Your task to perform on an android device: Do I have any events tomorrow? Image 0: 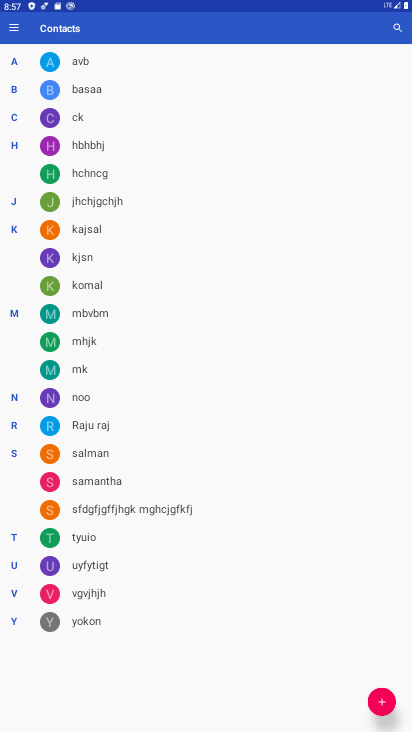
Step 0: press home button
Your task to perform on an android device: Do I have any events tomorrow? Image 1: 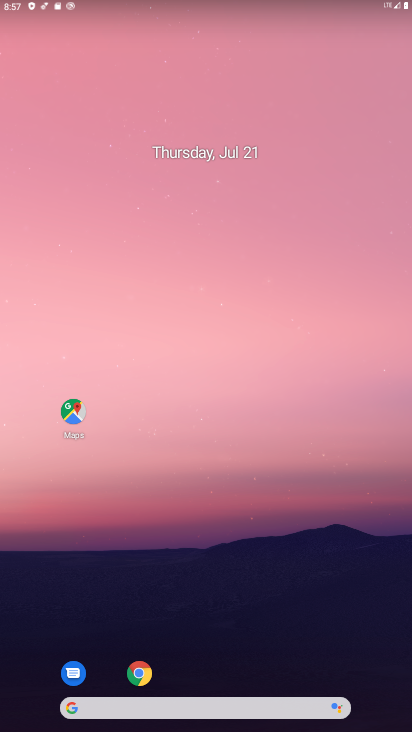
Step 1: drag from (207, 661) to (206, 189)
Your task to perform on an android device: Do I have any events tomorrow? Image 2: 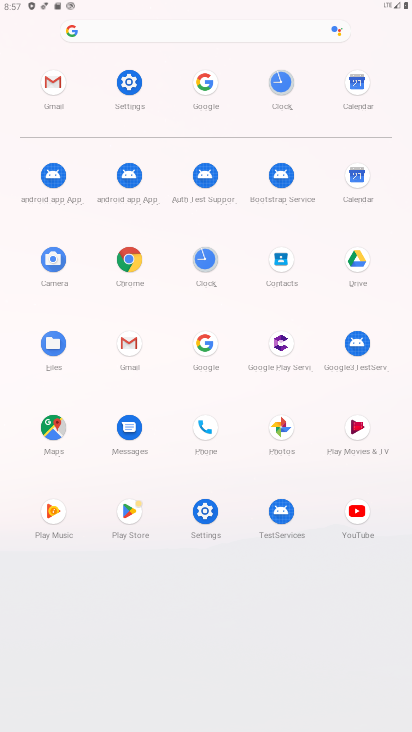
Step 2: click (366, 196)
Your task to perform on an android device: Do I have any events tomorrow? Image 3: 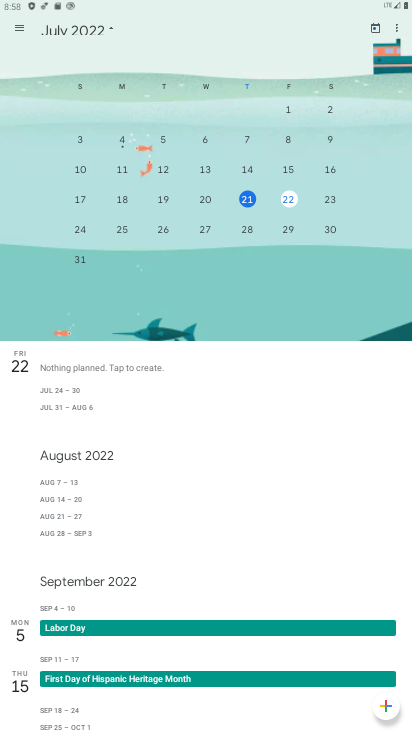
Step 3: click (282, 208)
Your task to perform on an android device: Do I have any events tomorrow? Image 4: 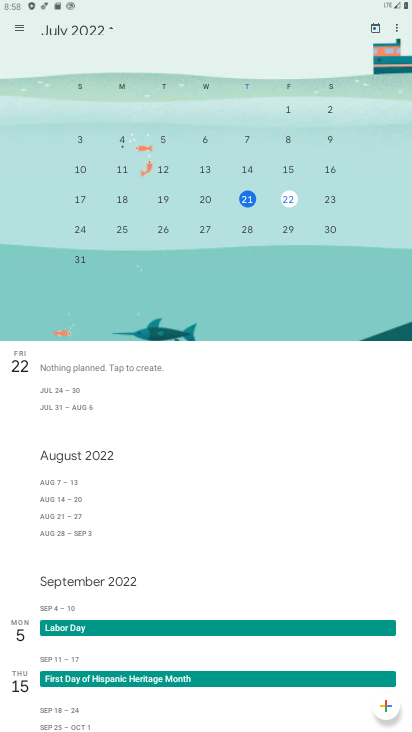
Step 4: task complete